Your task to perform on an android device: check google app version Image 0: 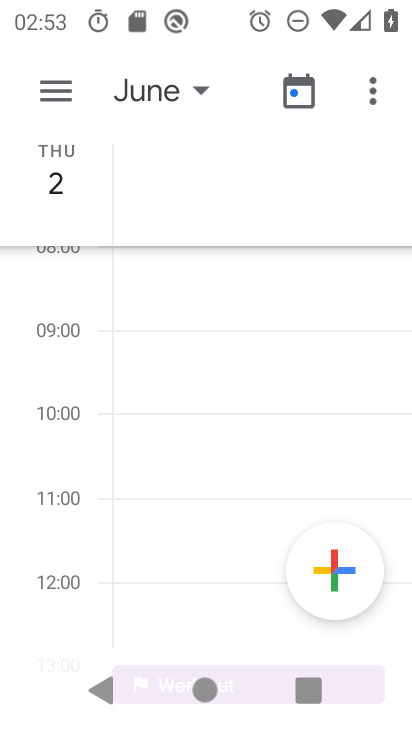
Step 0: press home button
Your task to perform on an android device: check google app version Image 1: 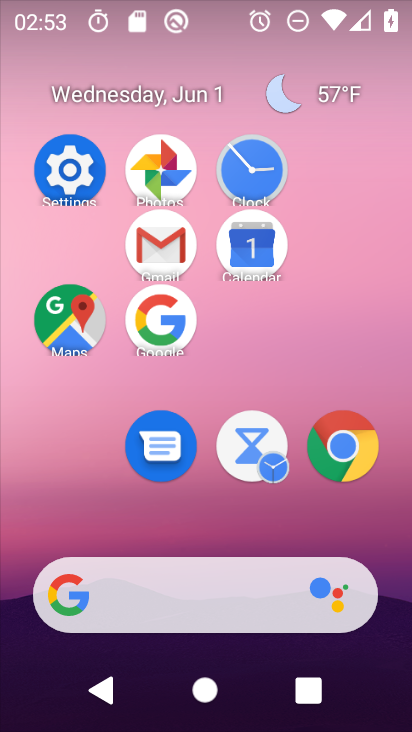
Step 1: click (181, 315)
Your task to perform on an android device: check google app version Image 2: 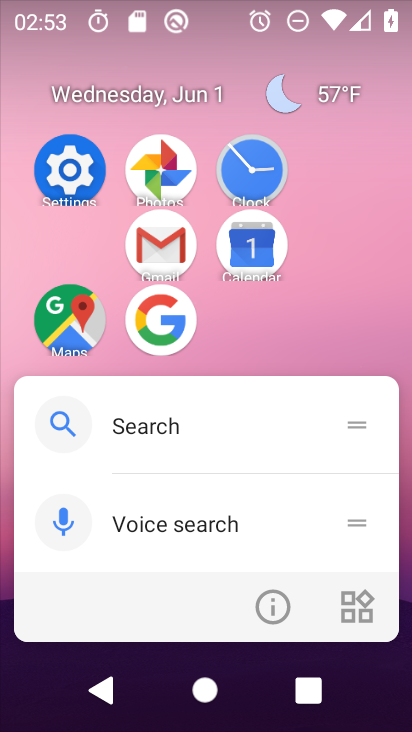
Step 2: click (271, 598)
Your task to perform on an android device: check google app version Image 3: 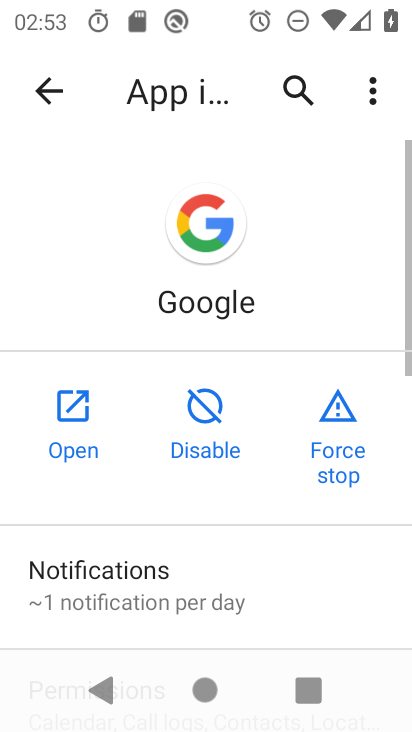
Step 3: drag from (271, 598) to (323, 155)
Your task to perform on an android device: check google app version Image 4: 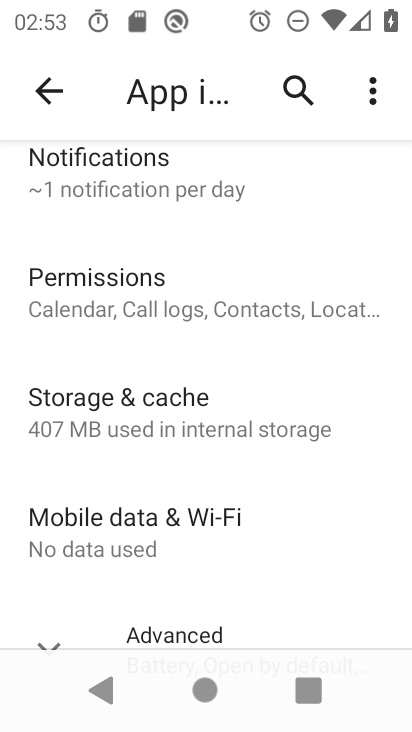
Step 4: drag from (271, 566) to (304, 128)
Your task to perform on an android device: check google app version Image 5: 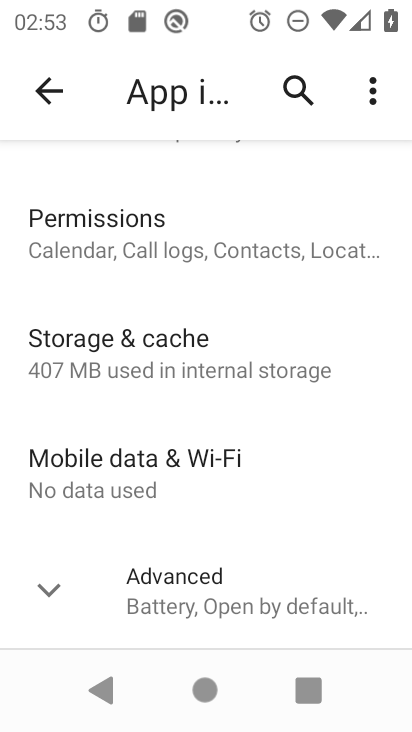
Step 5: click (209, 623)
Your task to perform on an android device: check google app version Image 6: 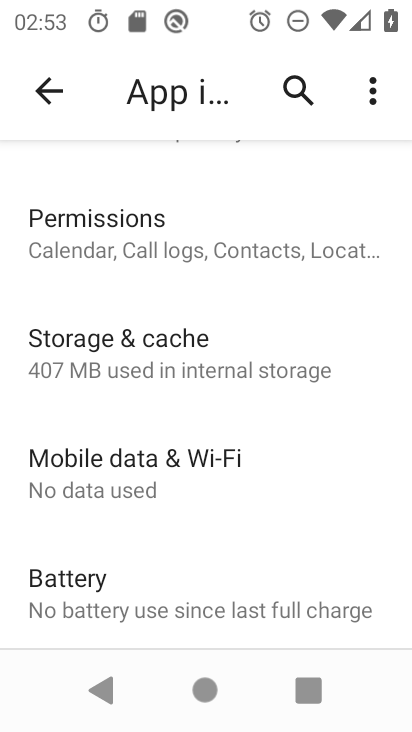
Step 6: task complete